Your task to perform on an android device: check out phone information Image 0: 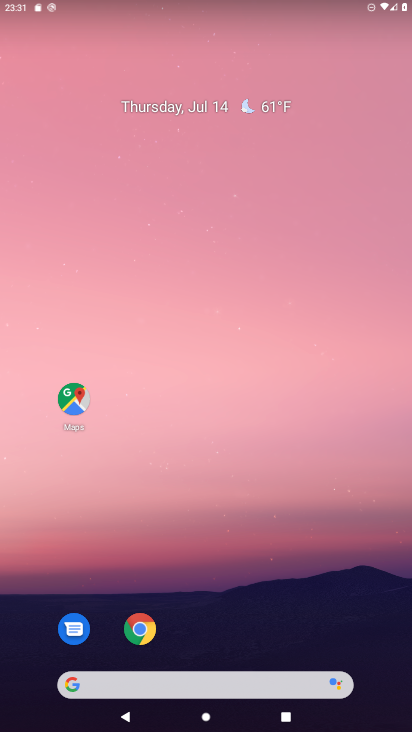
Step 0: drag from (186, 621) to (246, 82)
Your task to perform on an android device: check out phone information Image 1: 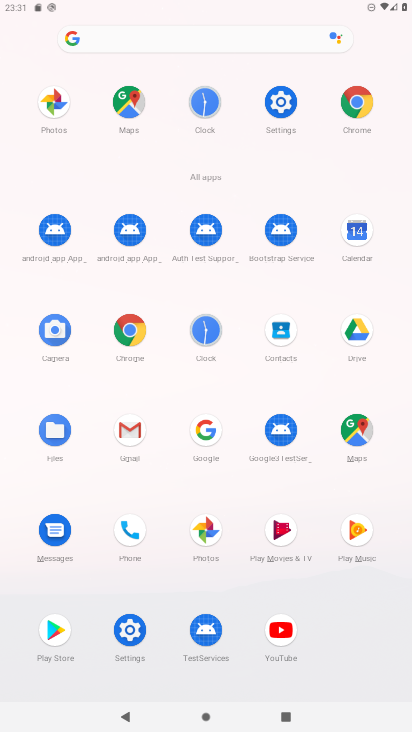
Step 1: click (275, 104)
Your task to perform on an android device: check out phone information Image 2: 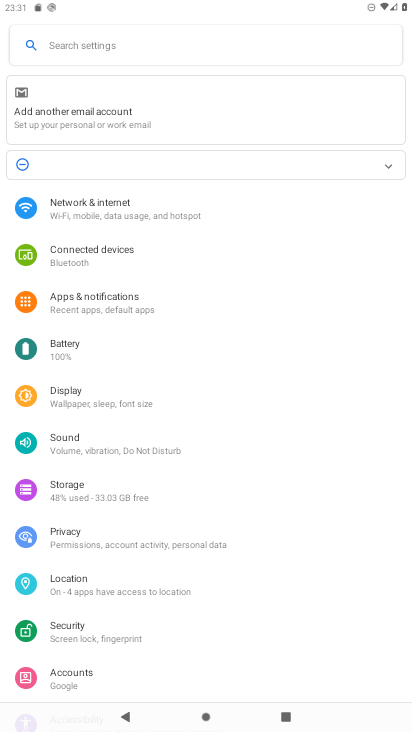
Step 2: drag from (137, 577) to (223, 28)
Your task to perform on an android device: check out phone information Image 3: 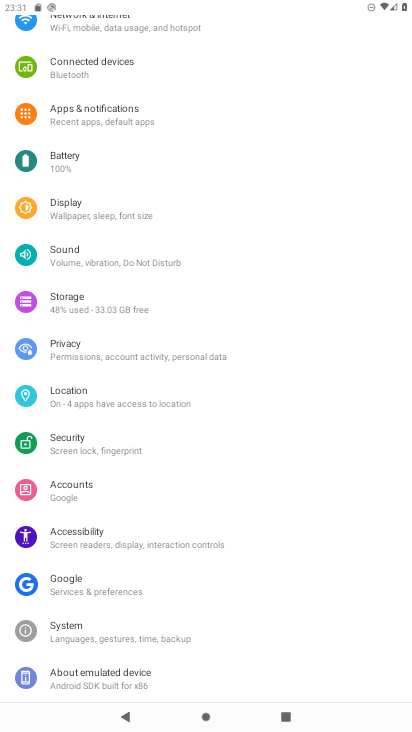
Step 3: click (139, 636)
Your task to perform on an android device: check out phone information Image 4: 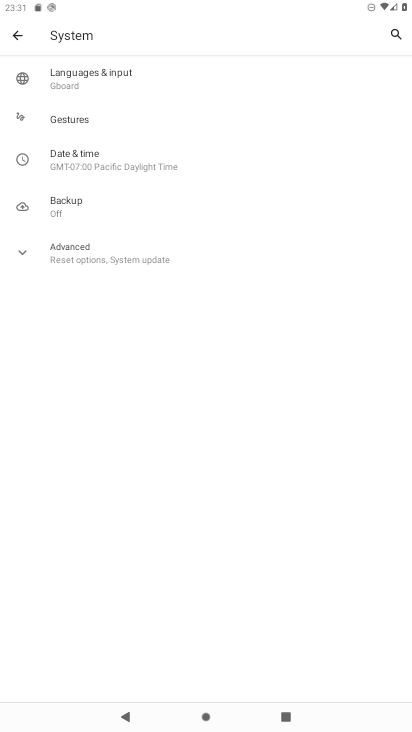
Step 4: click (111, 261)
Your task to perform on an android device: check out phone information Image 5: 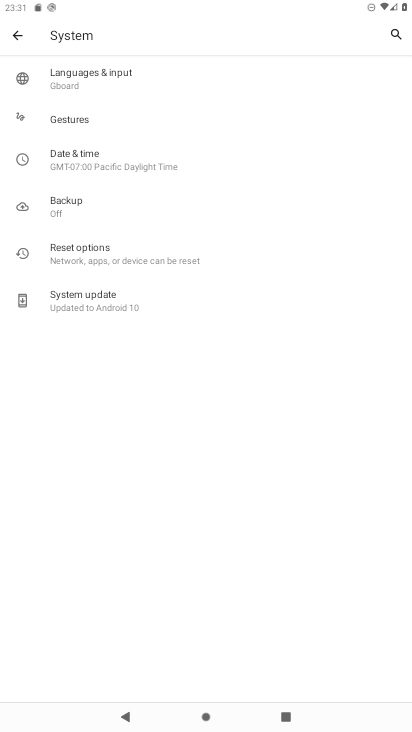
Step 5: task complete